Your task to perform on an android device: turn off translation in the chrome app Image 0: 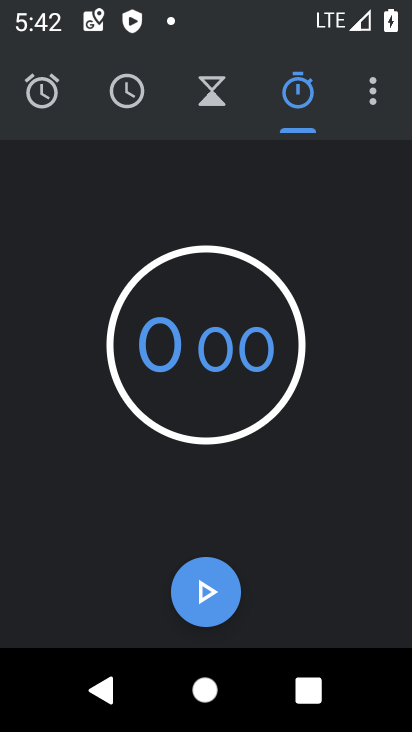
Step 0: press home button
Your task to perform on an android device: turn off translation in the chrome app Image 1: 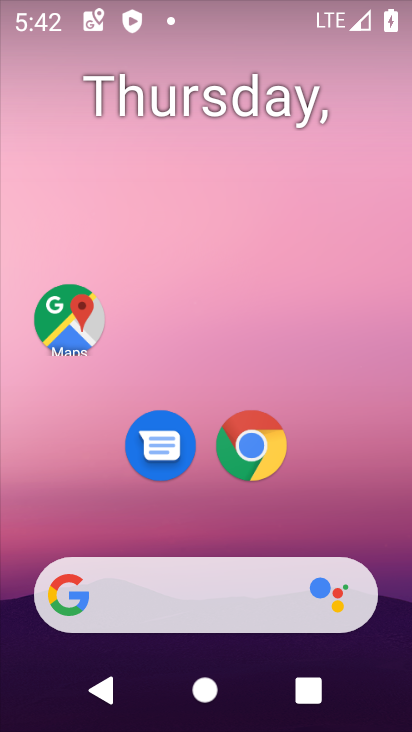
Step 1: click (264, 454)
Your task to perform on an android device: turn off translation in the chrome app Image 2: 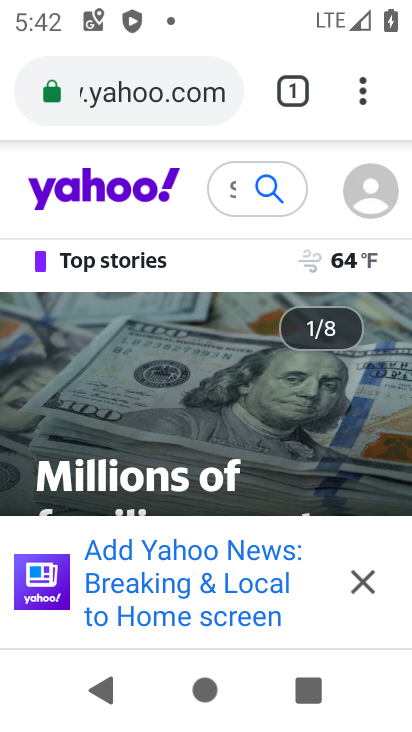
Step 2: drag from (355, 92) to (163, 488)
Your task to perform on an android device: turn off translation in the chrome app Image 3: 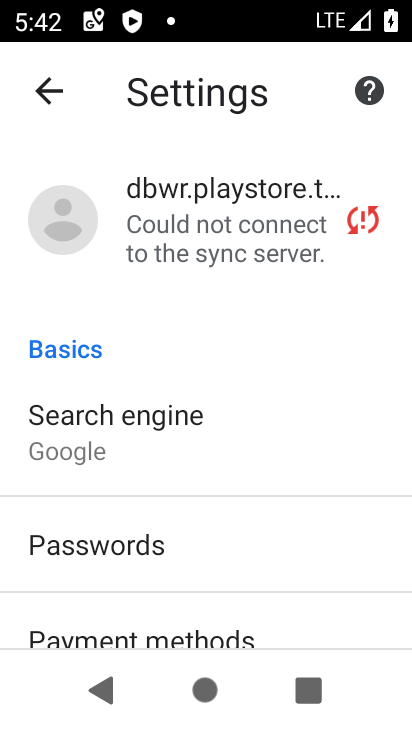
Step 3: drag from (291, 557) to (309, 199)
Your task to perform on an android device: turn off translation in the chrome app Image 4: 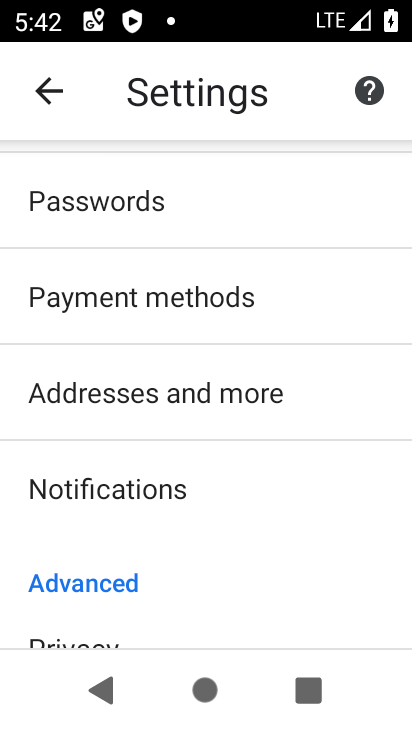
Step 4: drag from (307, 556) to (330, 278)
Your task to perform on an android device: turn off translation in the chrome app Image 5: 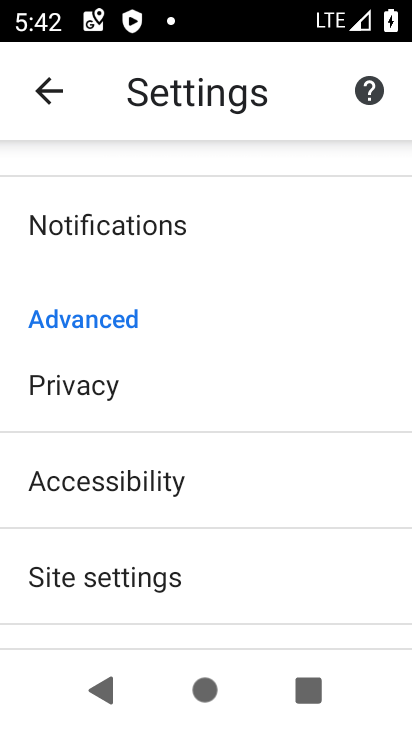
Step 5: drag from (262, 516) to (287, 246)
Your task to perform on an android device: turn off translation in the chrome app Image 6: 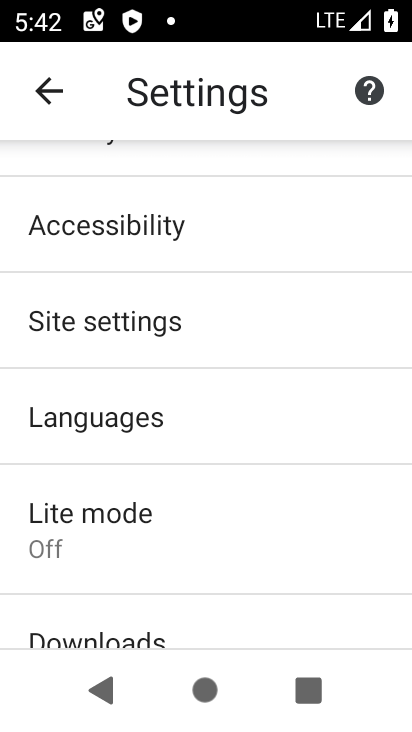
Step 6: drag from (228, 548) to (225, 322)
Your task to perform on an android device: turn off translation in the chrome app Image 7: 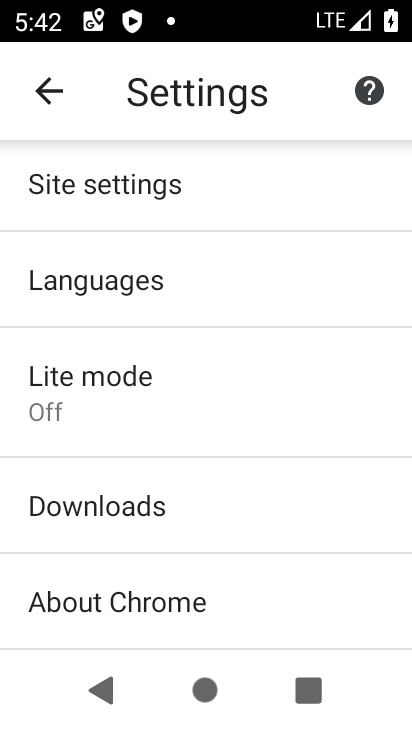
Step 7: click (151, 270)
Your task to perform on an android device: turn off translation in the chrome app Image 8: 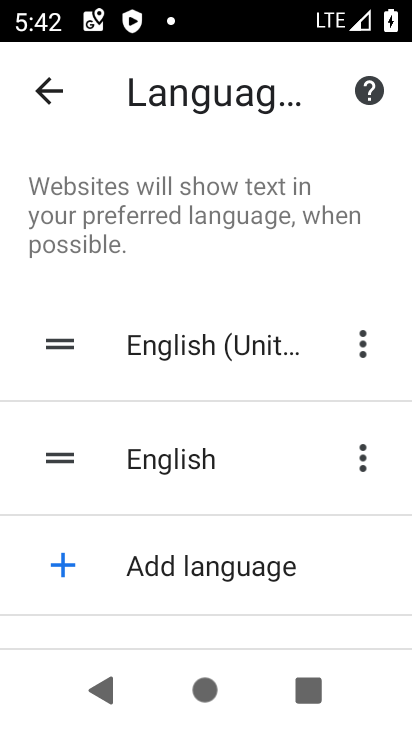
Step 8: drag from (316, 472) to (320, 257)
Your task to perform on an android device: turn off translation in the chrome app Image 9: 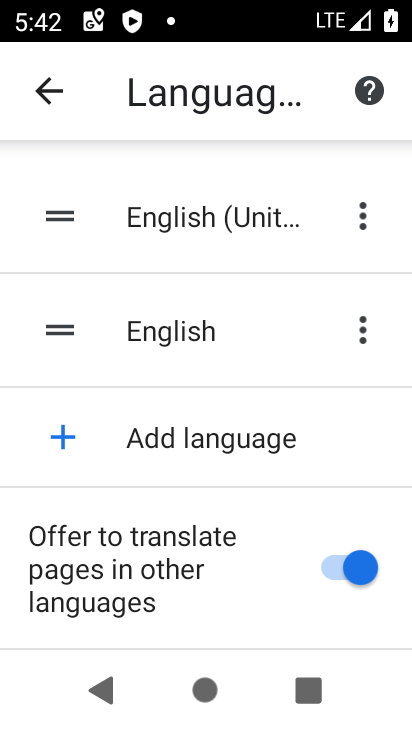
Step 9: click (337, 561)
Your task to perform on an android device: turn off translation in the chrome app Image 10: 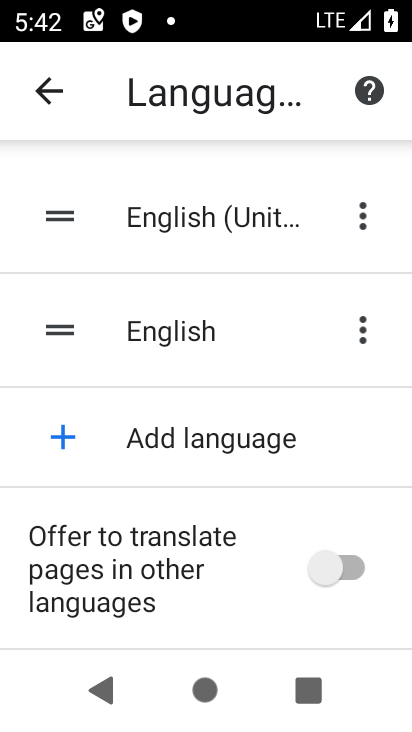
Step 10: task complete